Your task to perform on an android device: change the clock display to show seconds Image 0: 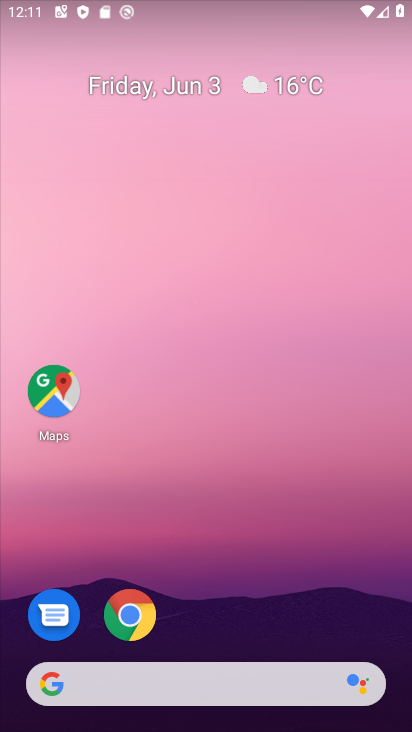
Step 0: drag from (198, 599) to (199, 363)
Your task to perform on an android device: change the clock display to show seconds Image 1: 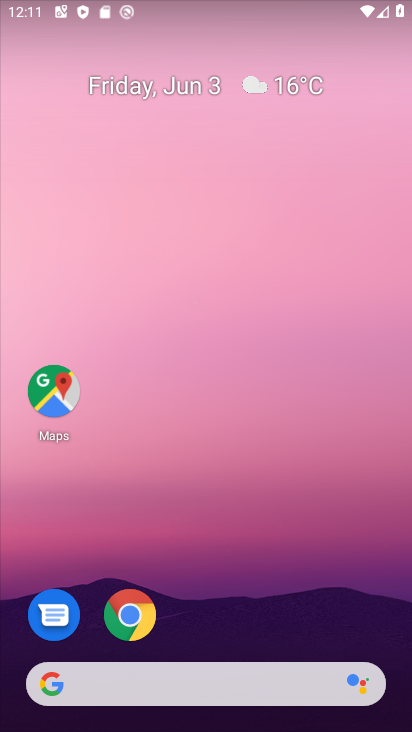
Step 1: drag from (270, 569) to (259, 359)
Your task to perform on an android device: change the clock display to show seconds Image 2: 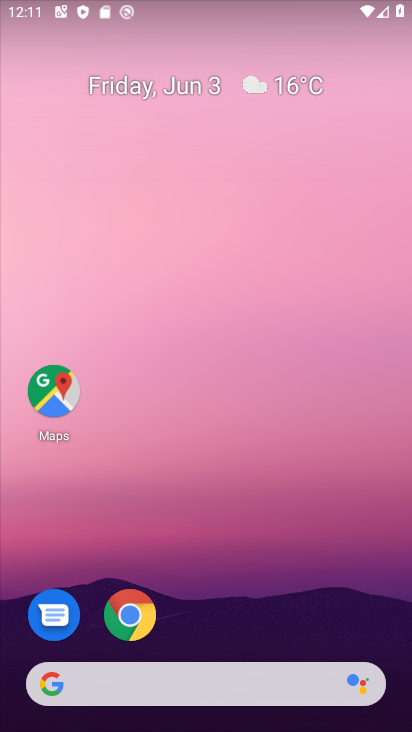
Step 2: drag from (245, 664) to (234, 305)
Your task to perform on an android device: change the clock display to show seconds Image 3: 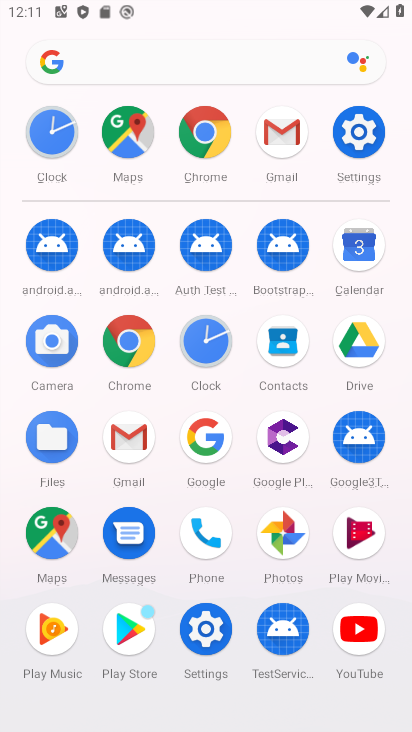
Step 3: click (207, 333)
Your task to perform on an android device: change the clock display to show seconds Image 4: 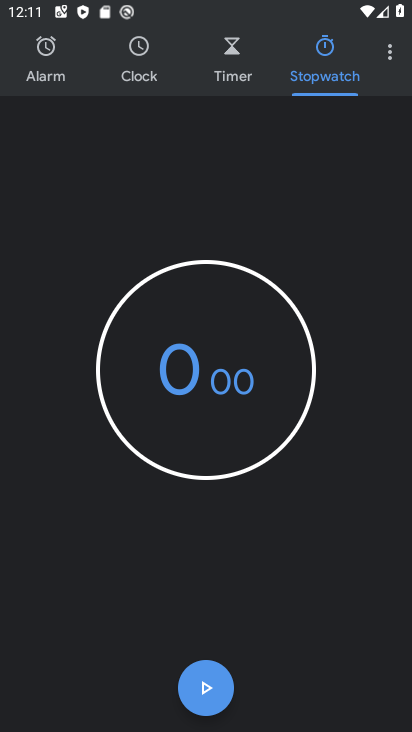
Step 4: click (376, 47)
Your task to perform on an android device: change the clock display to show seconds Image 5: 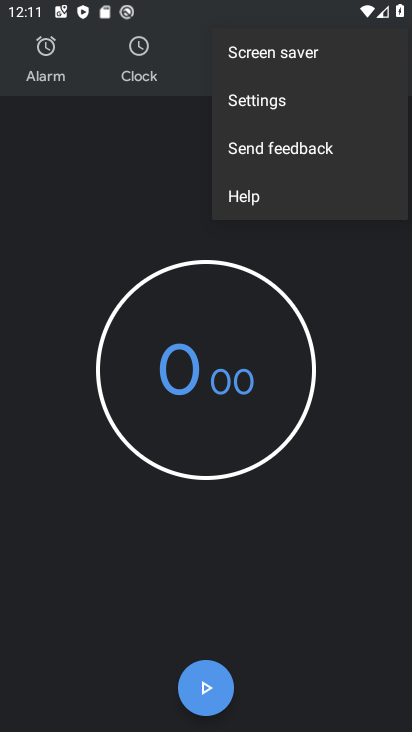
Step 5: click (253, 98)
Your task to perform on an android device: change the clock display to show seconds Image 6: 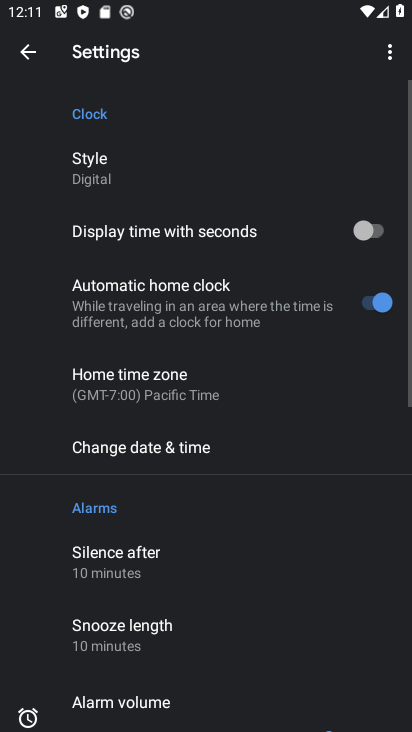
Step 6: click (372, 225)
Your task to perform on an android device: change the clock display to show seconds Image 7: 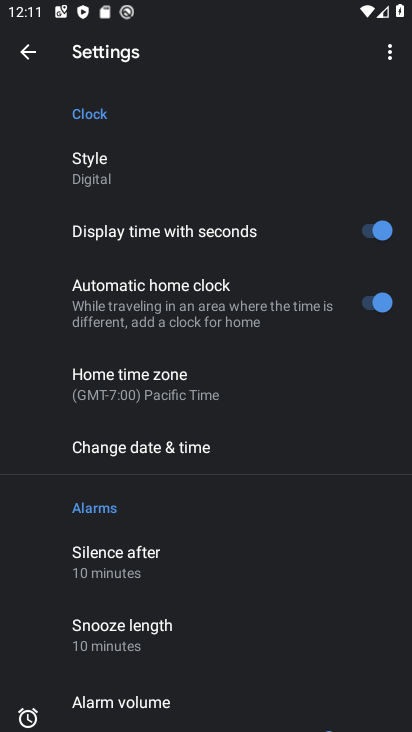
Step 7: task complete